Your task to perform on an android device: toggle pop-ups in chrome Image 0: 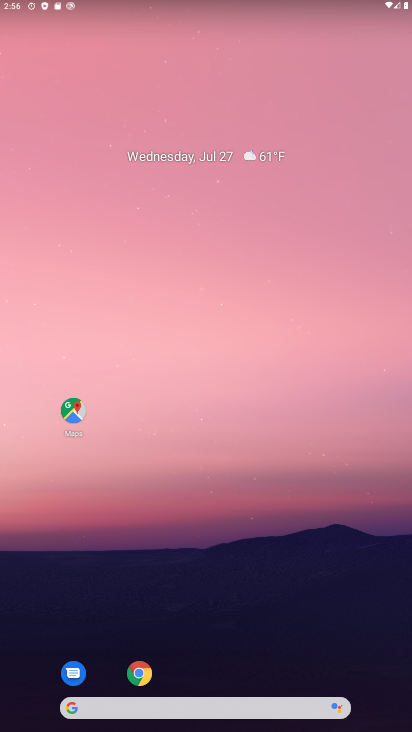
Step 0: click (132, 669)
Your task to perform on an android device: toggle pop-ups in chrome Image 1: 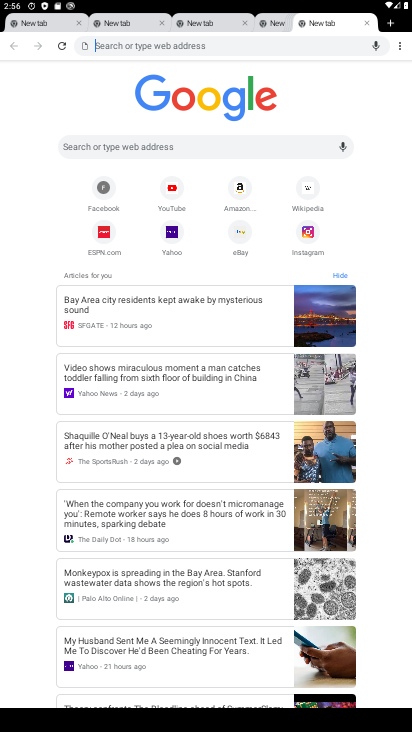
Step 1: task complete